Your task to perform on an android device: toggle wifi Image 0: 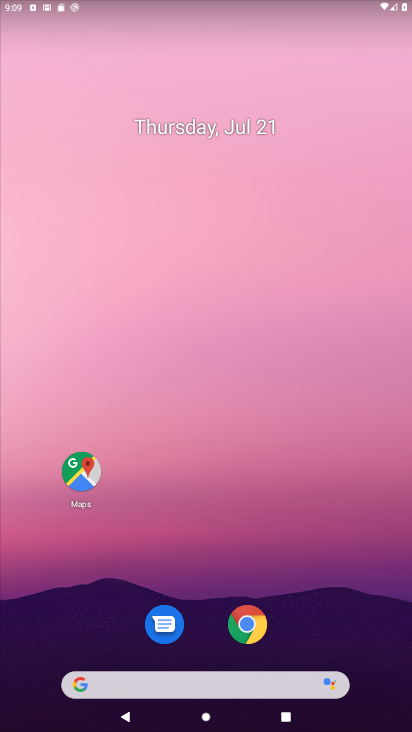
Step 0: drag from (326, 10) to (248, 480)
Your task to perform on an android device: toggle wifi Image 1: 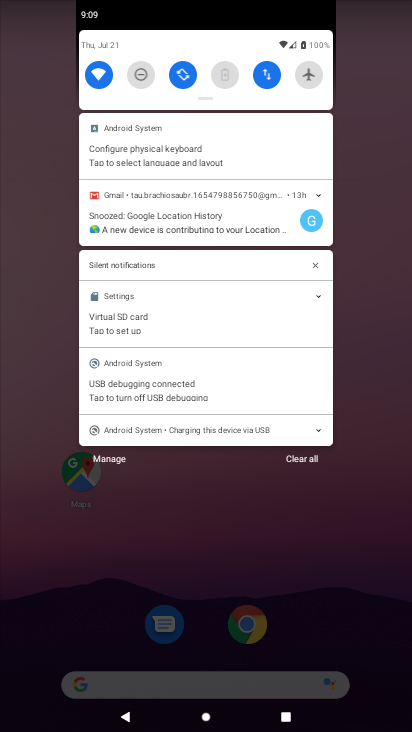
Step 1: click (96, 75)
Your task to perform on an android device: toggle wifi Image 2: 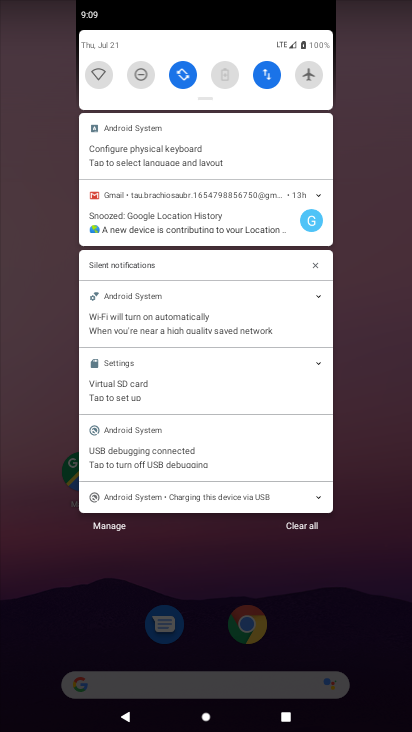
Step 2: task complete